Your task to perform on an android device: Search for nike dri-fit shirts on Nike Image 0: 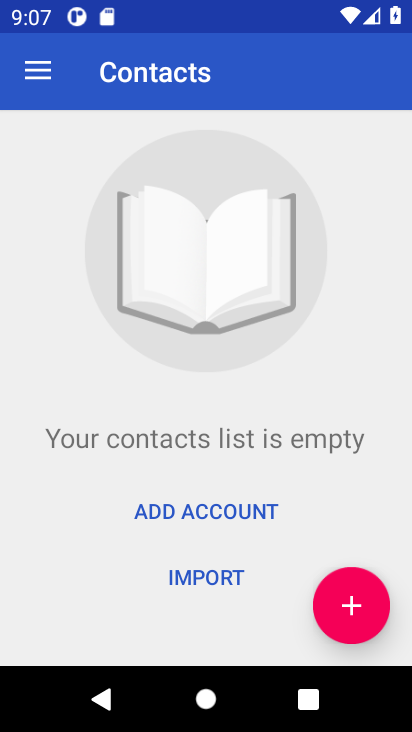
Step 0: press home button
Your task to perform on an android device: Search for nike dri-fit shirts on Nike Image 1: 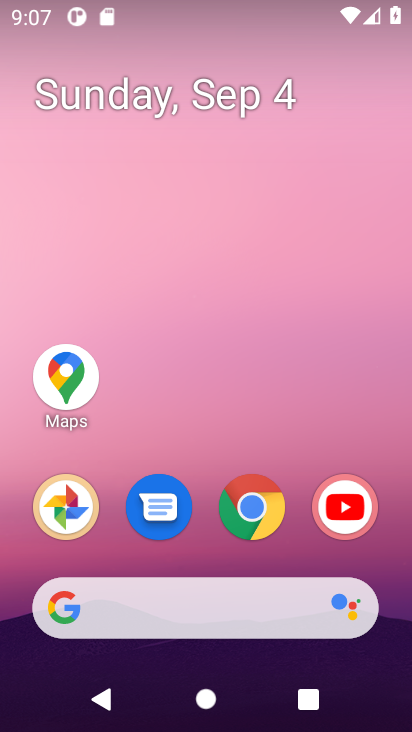
Step 1: click (252, 508)
Your task to perform on an android device: Search for nike dri-fit shirts on Nike Image 2: 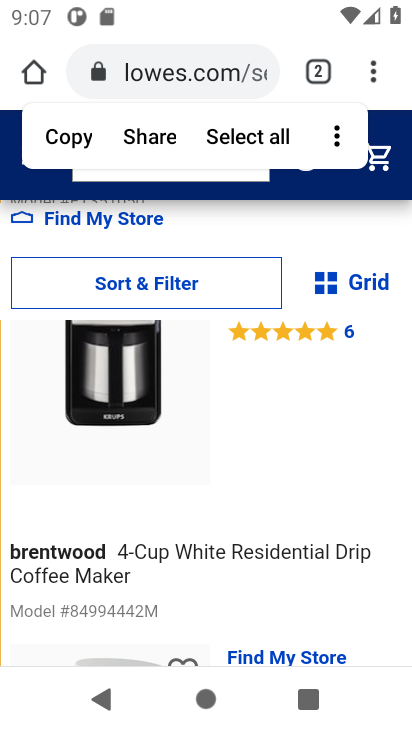
Step 2: click (182, 51)
Your task to perform on an android device: Search for nike dri-fit shirts on Nike Image 3: 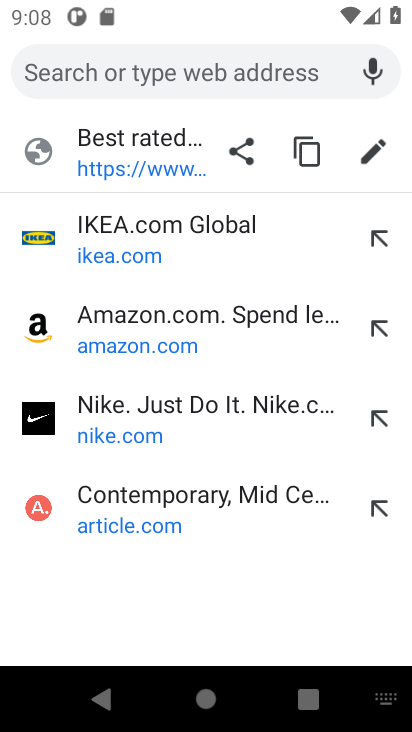
Step 3: type "Nike"
Your task to perform on an android device: Search for nike dri-fit shirts on Nike Image 4: 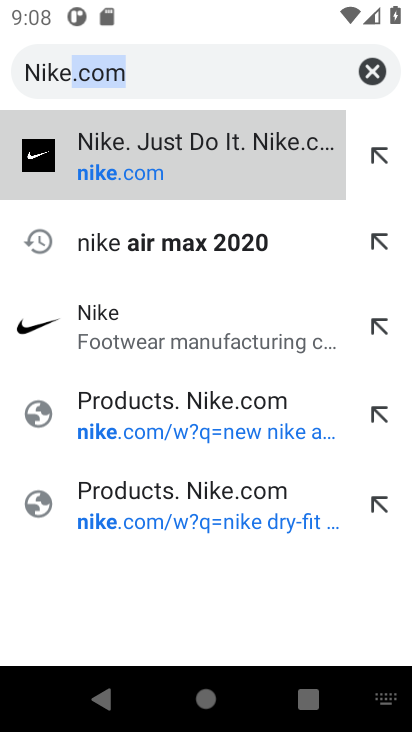
Step 4: click (129, 148)
Your task to perform on an android device: Search for nike dri-fit shirts on Nike Image 5: 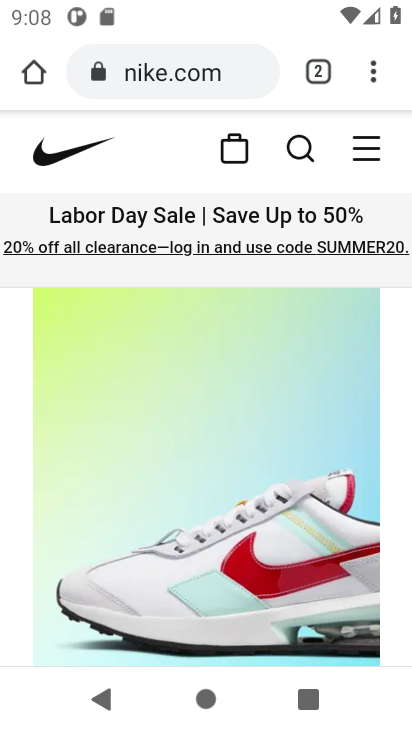
Step 5: click (295, 148)
Your task to perform on an android device: Search for nike dri-fit shirts on Nike Image 6: 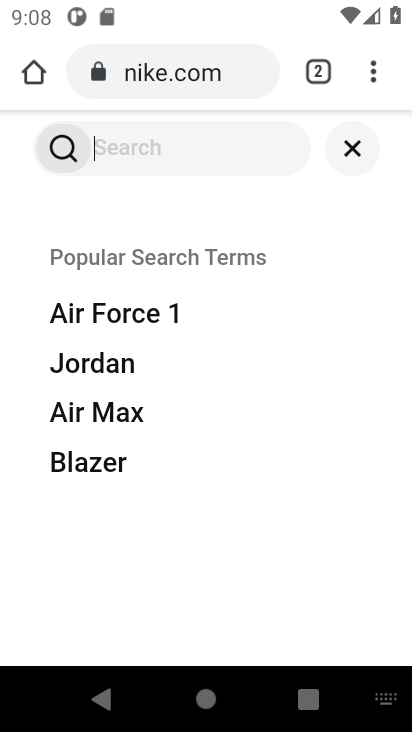
Step 6: type "nike dri-fit shirts"
Your task to perform on an android device: Search for nike dri-fit shirts on Nike Image 7: 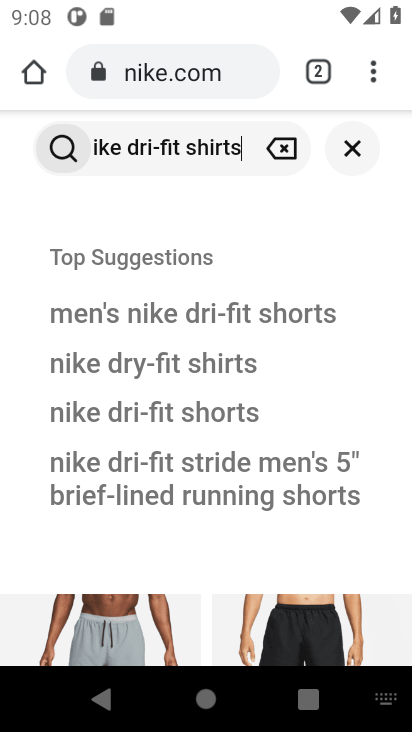
Step 7: click (57, 146)
Your task to perform on an android device: Search for nike dri-fit shirts on Nike Image 8: 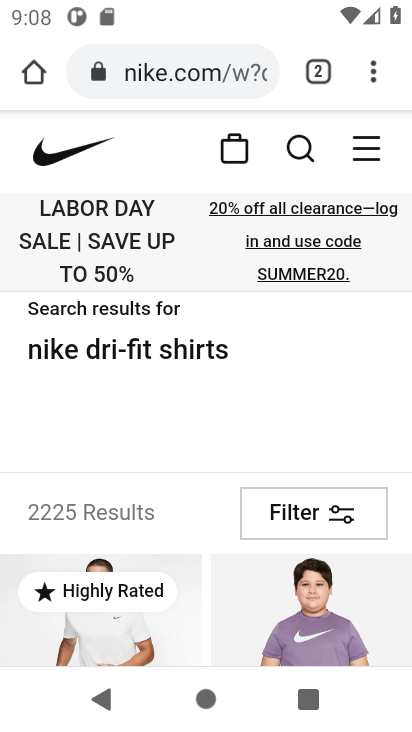
Step 8: drag from (207, 553) to (209, 199)
Your task to perform on an android device: Search for nike dri-fit shirts on Nike Image 9: 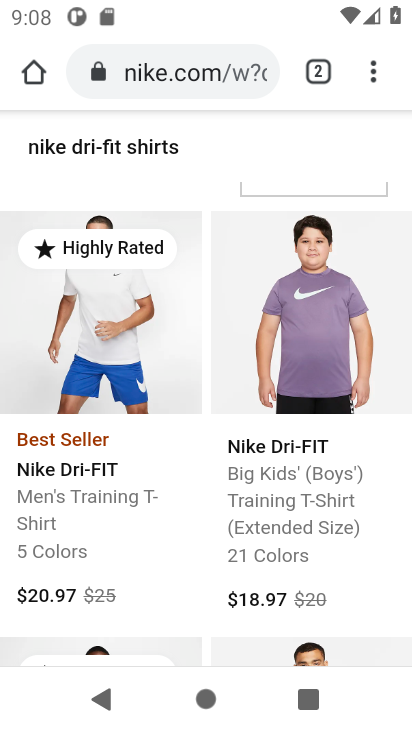
Step 9: drag from (202, 297) to (199, 243)
Your task to perform on an android device: Search for nike dri-fit shirts on Nike Image 10: 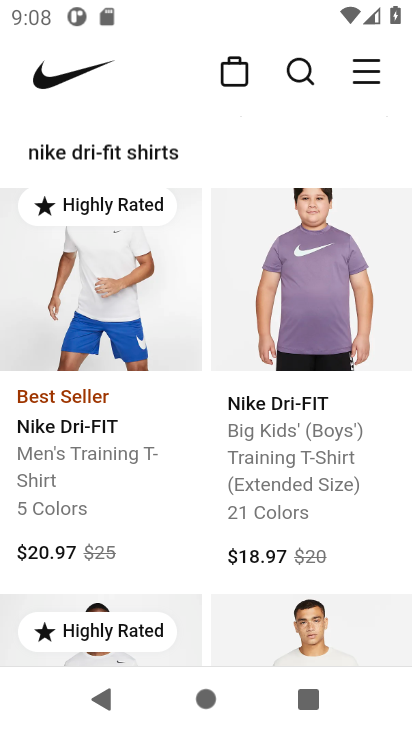
Step 10: drag from (203, 592) to (201, 257)
Your task to perform on an android device: Search for nike dri-fit shirts on Nike Image 11: 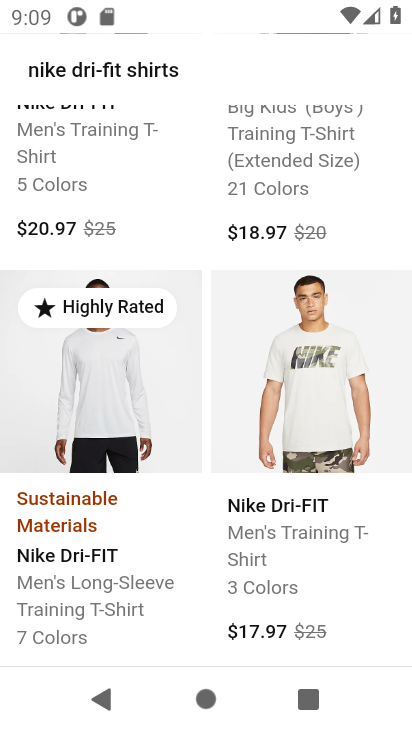
Step 11: drag from (194, 192) to (195, 139)
Your task to perform on an android device: Search for nike dri-fit shirts on Nike Image 12: 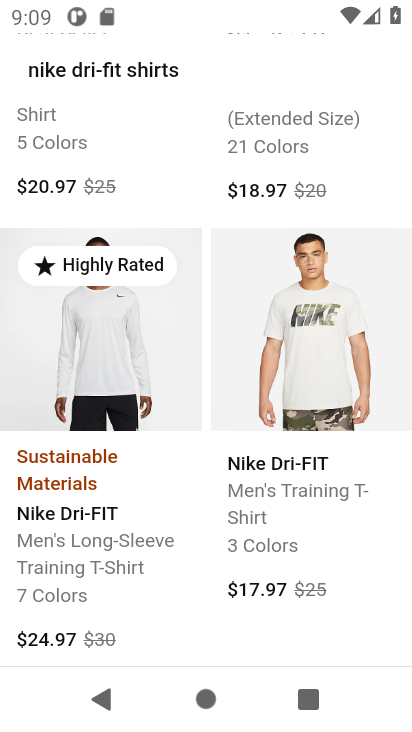
Step 12: drag from (206, 285) to (204, 204)
Your task to perform on an android device: Search for nike dri-fit shirts on Nike Image 13: 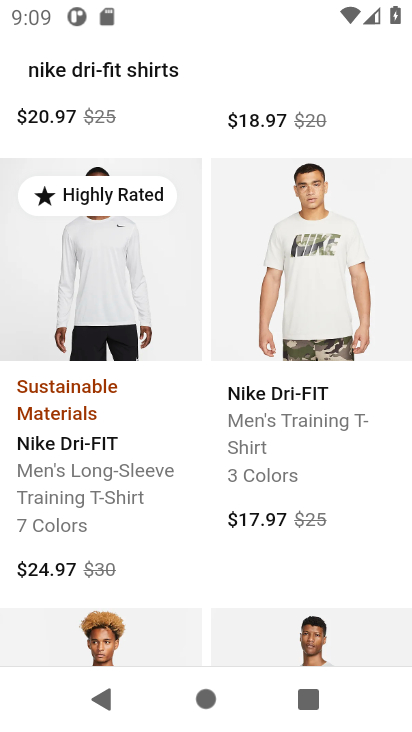
Step 13: drag from (209, 614) to (204, 171)
Your task to perform on an android device: Search for nike dri-fit shirts on Nike Image 14: 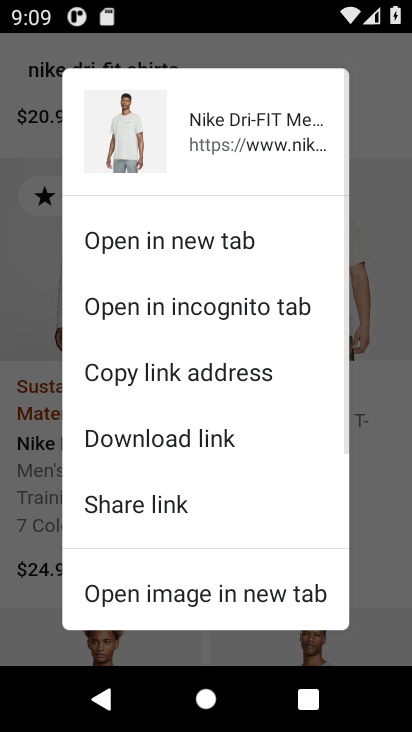
Step 14: click (377, 463)
Your task to perform on an android device: Search for nike dri-fit shirts on Nike Image 15: 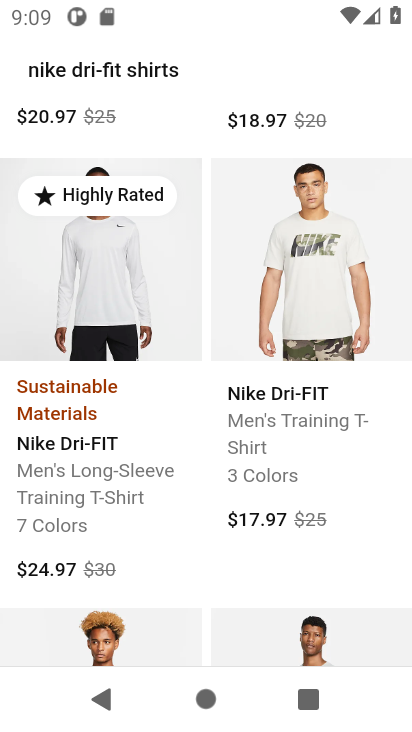
Step 15: task complete